Your task to perform on an android device: open wifi settings Image 0: 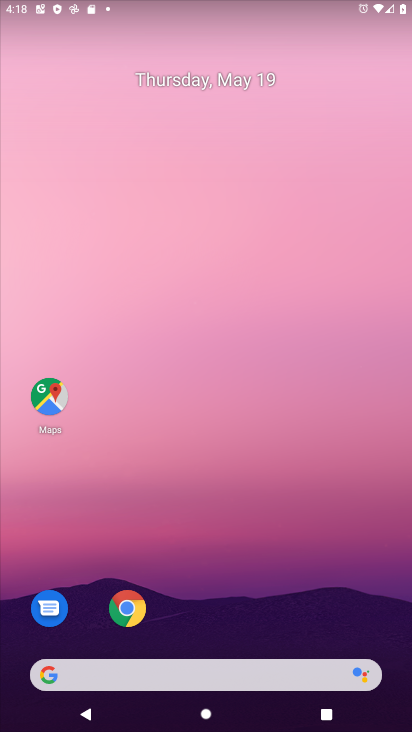
Step 0: drag from (266, 623) to (239, 54)
Your task to perform on an android device: open wifi settings Image 1: 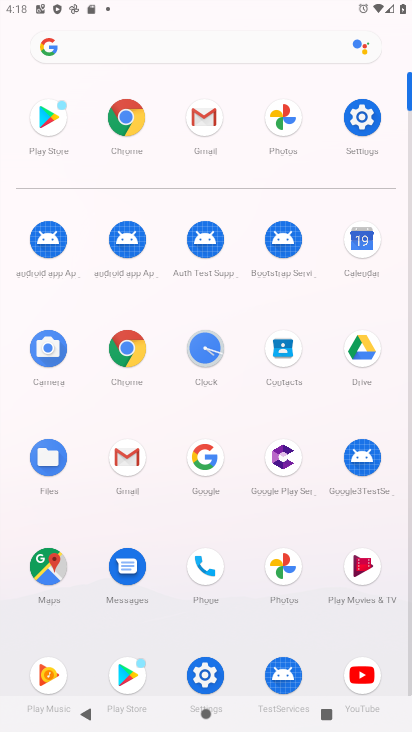
Step 1: click (379, 121)
Your task to perform on an android device: open wifi settings Image 2: 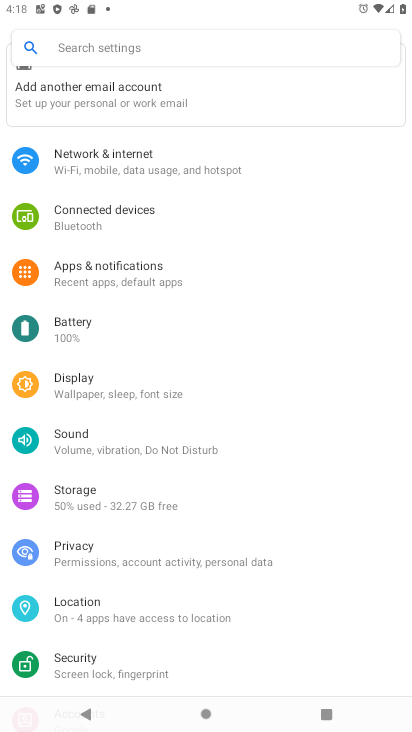
Step 2: click (204, 152)
Your task to perform on an android device: open wifi settings Image 3: 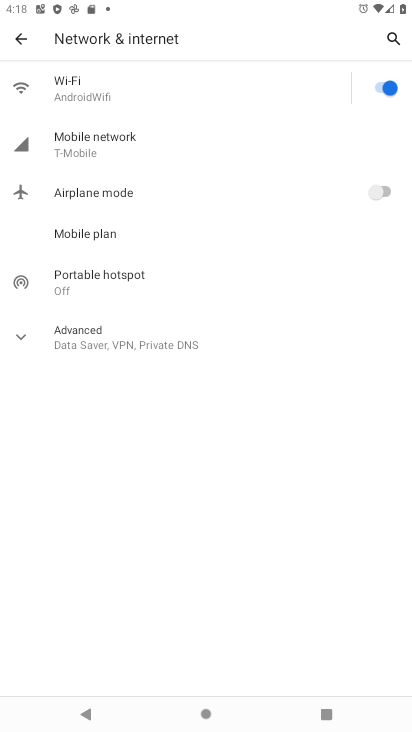
Step 3: click (179, 95)
Your task to perform on an android device: open wifi settings Image 4: 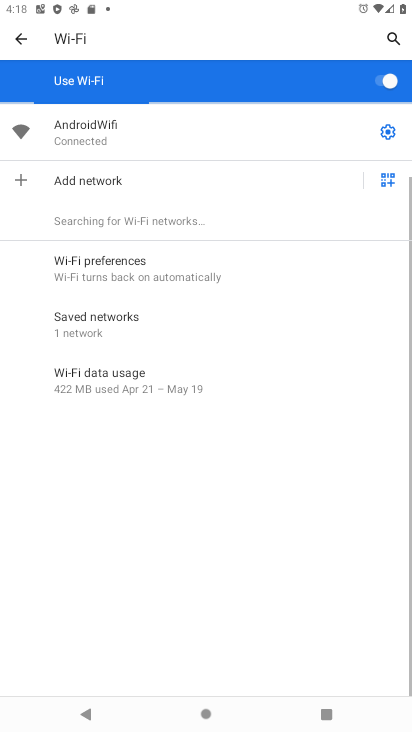
Step 4: task complete